Your task to perform on an android device: Go to calendar. Show me events next week Image 0: 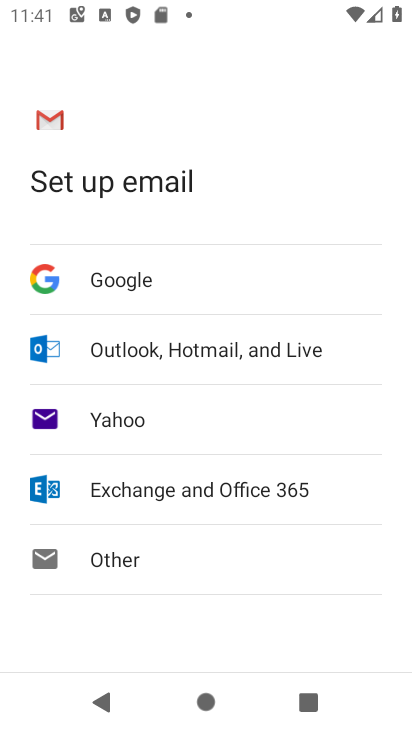
Step 0: press home button
Your task to perform on an android device: Go to calendar. Show me events next week Image 1: 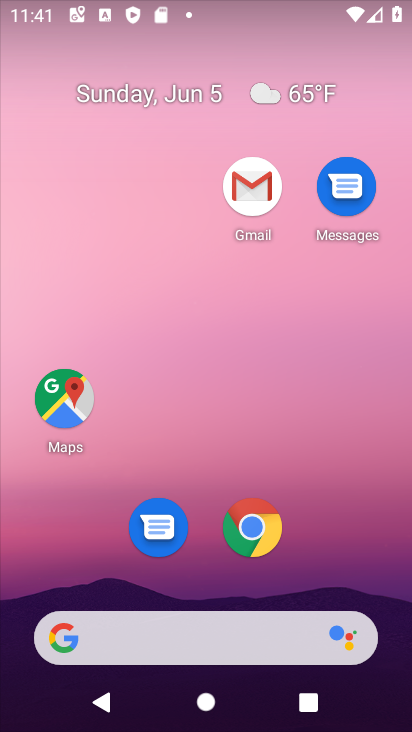
Step 1: drag from (342, 495) to (367, 127)
Your task to perform on an android device: Go to calendar. Show me events next week Image 2: 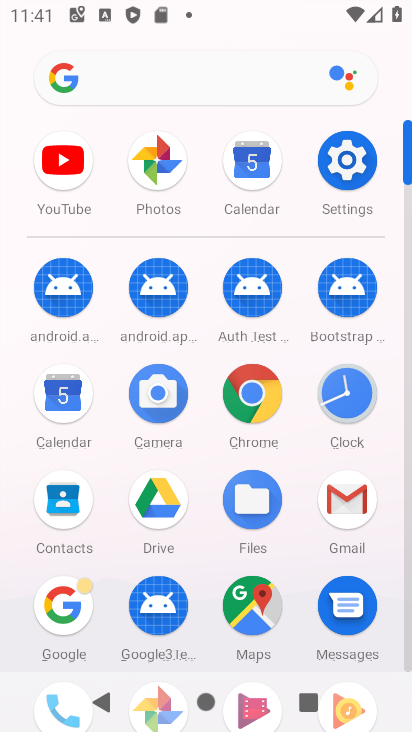
Step 2: click (255, 176)
Your task to perform on an android device: Go to calendar. Show me events next week Image 3: 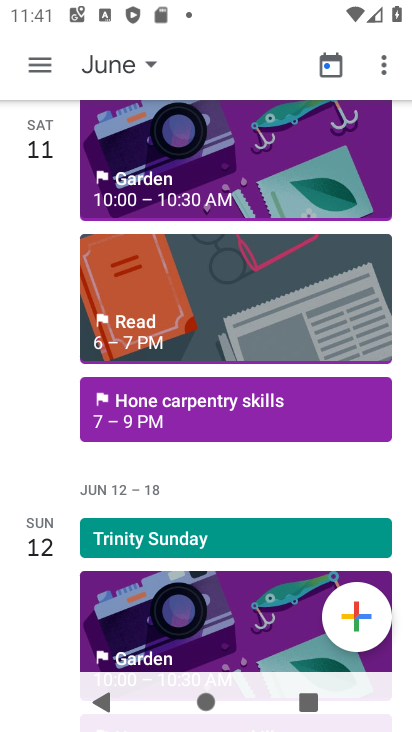
Step 3: task complete